Your task to perform on an android device: change text size in settings app Image 0: 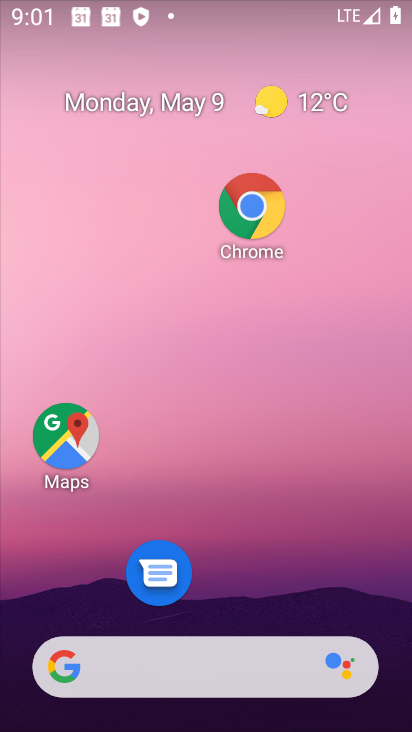
Step 0: drag from (238, 617) to (166, 110)
Your task to perform on an android device: change text size in settings app Image 1: 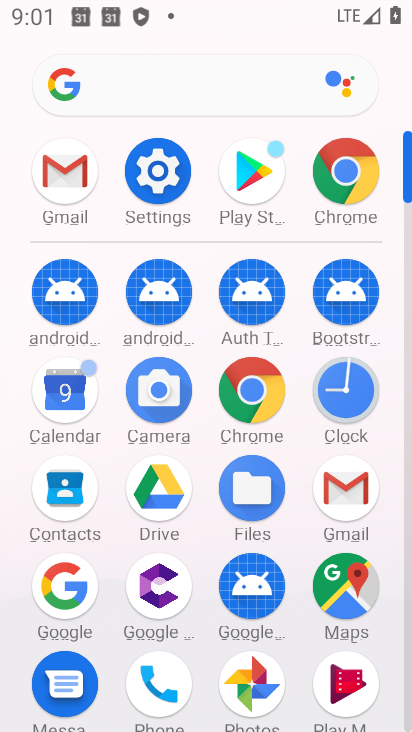
Step 1: click (145, 180)
Your task to perform on an android device: change text size in settings app Image 2: 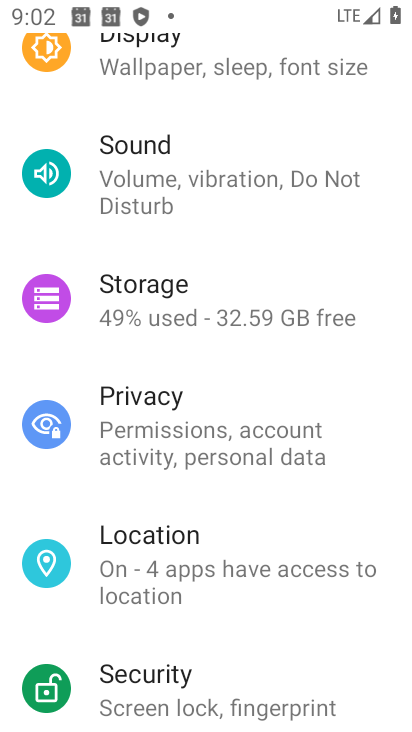
Step 2: drag from (238, 283) to (253, 723)
Your task to perform on an android device: change text size in settings app Image 3: 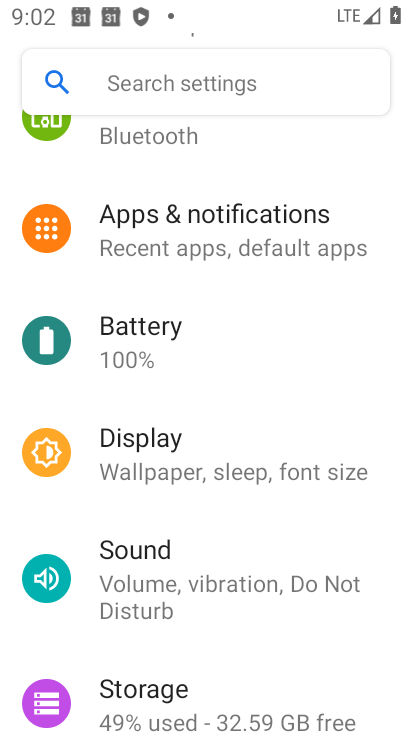
Step 3: click (268, 484)
Your task to perform on an android device: change text size in settings app Image 4: 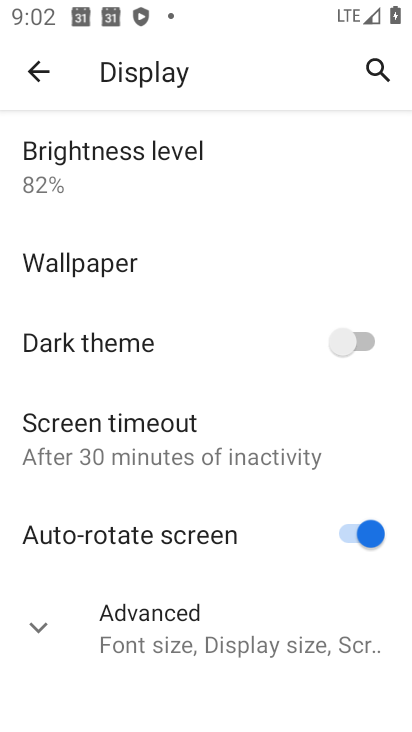
Step 4: click (178, 618)
Your task to perform on an android device: change text size in settings app Image 5: 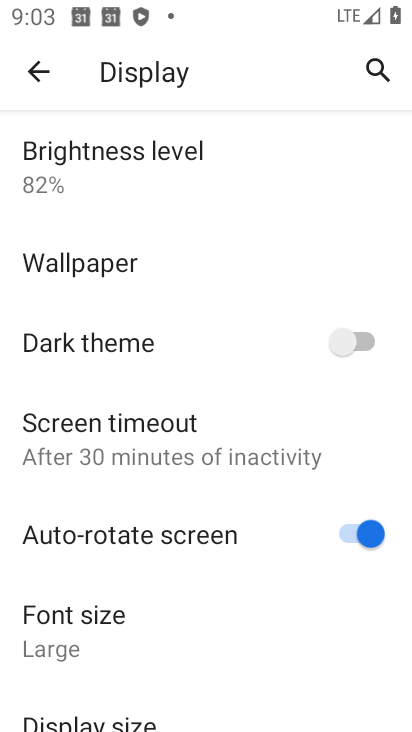
Step 5: drag from (176, 628) to (184, 477)
Your task to perform on an android device: change text size in settings app Image 6: 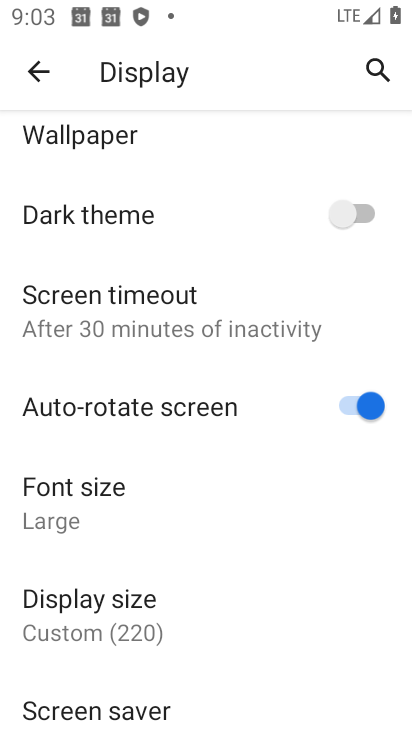
Step 6: click (121, 521)
Your task to perform on an android device: change text size in settings app Image 7: 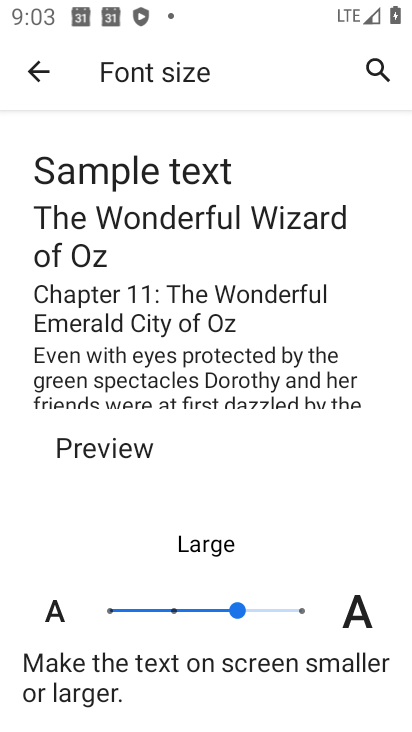
Step 7: click (188, 619)
Your task to perform on an android device: change text size in settings app Image 8: 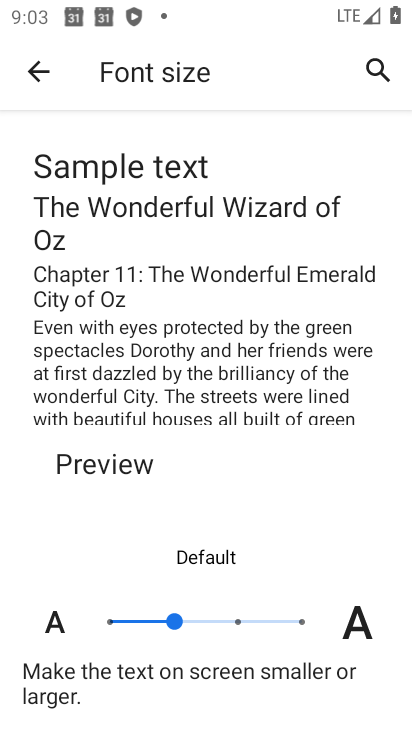
Step 8: task complete